Your task to perform on an android device: change the clock style Image 0: 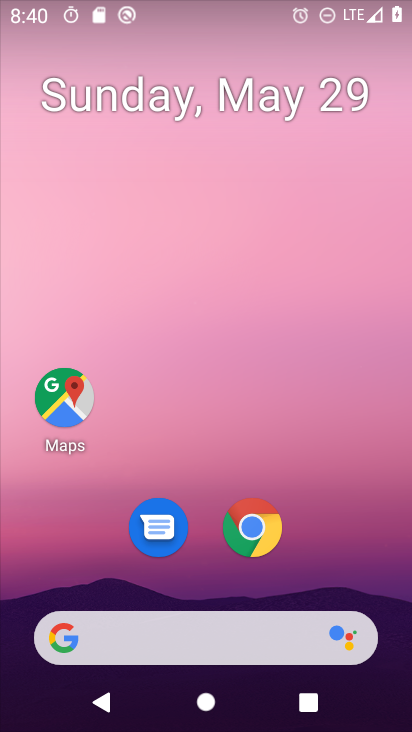
Step 0: drag from (398, 590) to (265, 48)
Your task to perform on an android device: change the clock style Image 1: 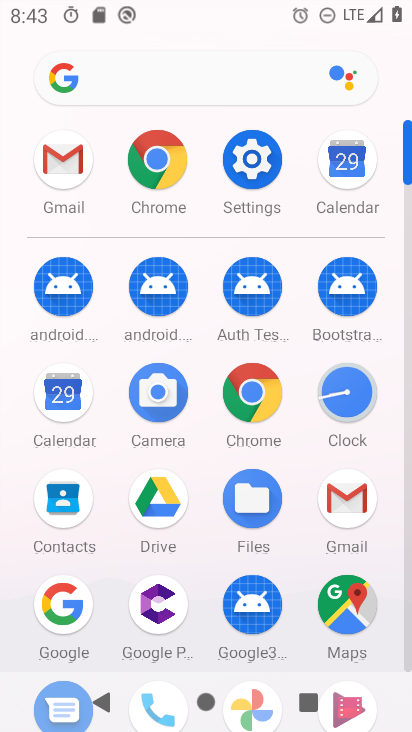
Step 1: click (351, 414)
Your task to perform on an android device: change the clock style Image 2: 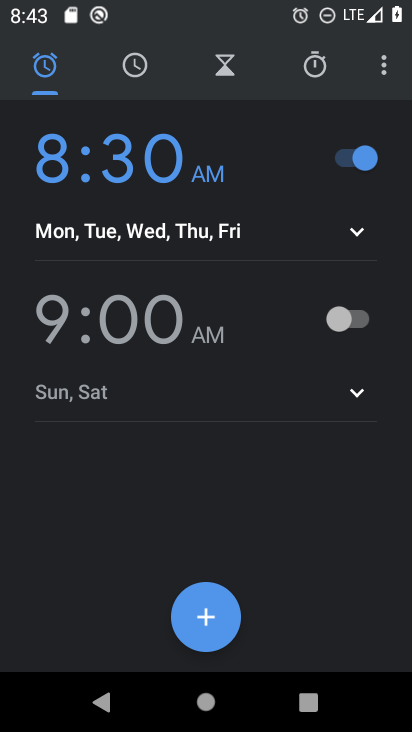
Step 2: click (393, 57)
Your task to perform on an android device: change the clock style Image 3: 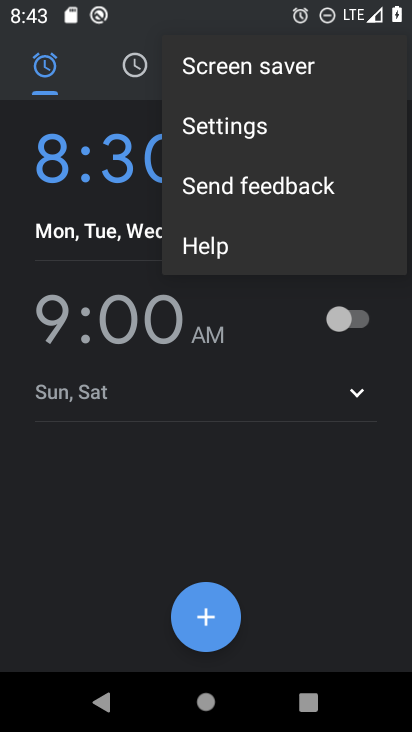
Step 3: click (245, 126)
Your task to perform on an android device: change the clock style Image 4: 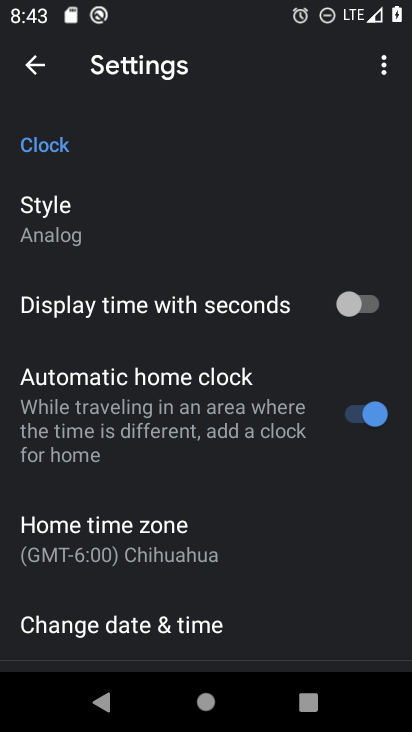
Step 4: click (96, 214)
Your task to perform on an android device: change the clock style Image 5: 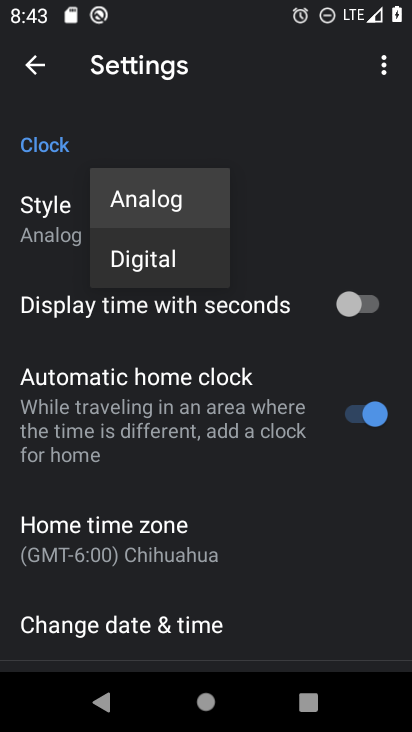
Step 5: click (174, 272)
Your task to perform on an android device: change the clock style Image 6: 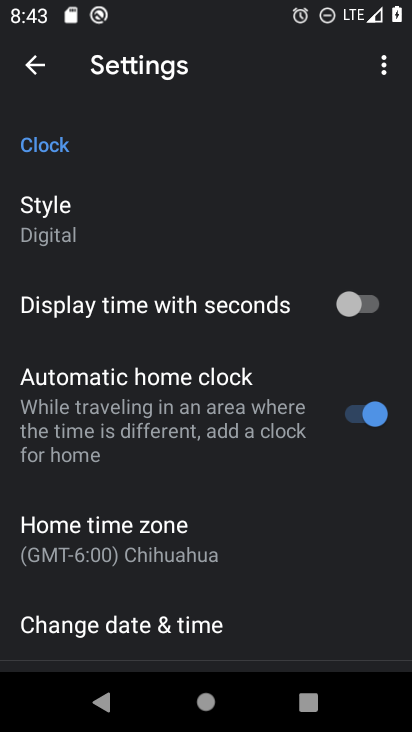
Step 6: task complete